Your task to perform on an android device: open app "Google Play Games" (install if not already installed) Image 0: 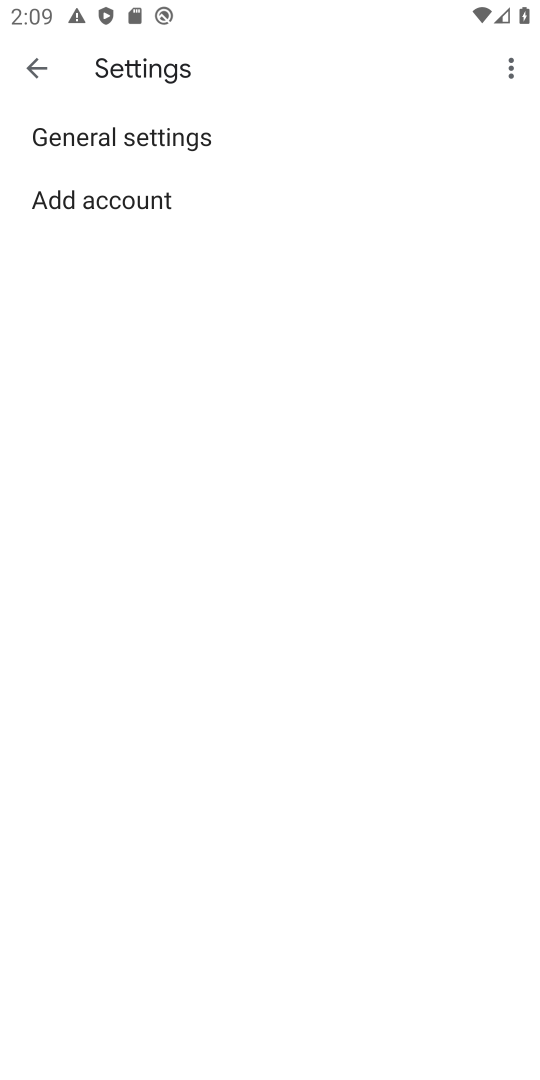
Step 0: press back button
Your task to perform on an android device: open app "Google Play Games" (install if not already installed) Image 1: 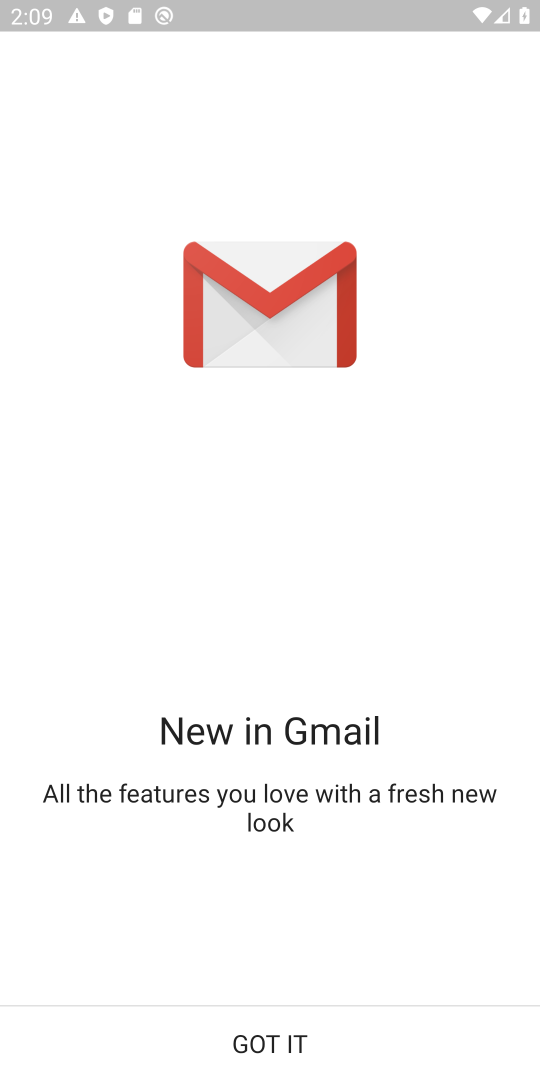
Step 1: press home button
Your task to perform on an android device: open app "Google Play Games" (install if not already installed) Image 2: 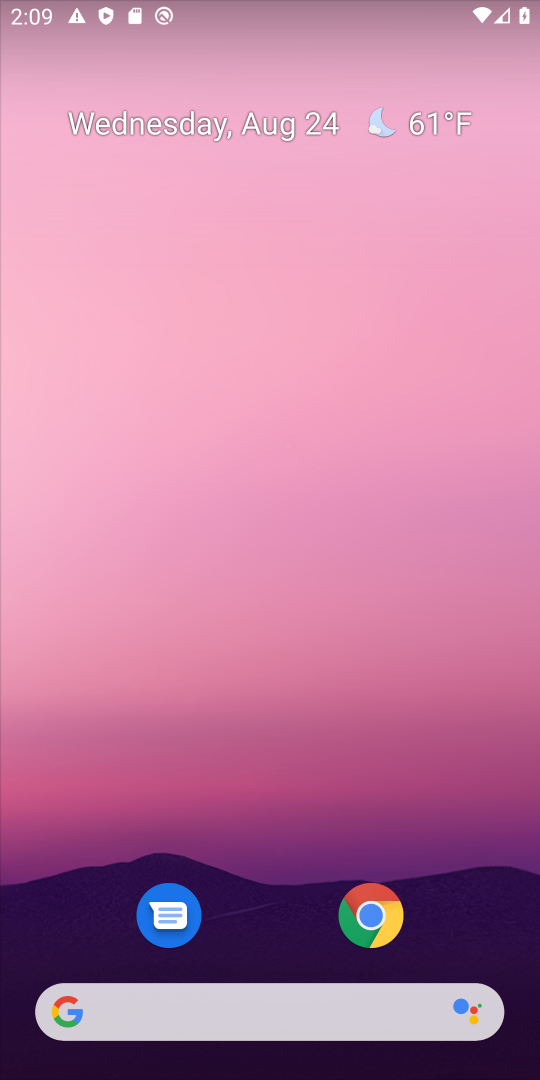
Step 2: drag from (209, 851) to (266, 142)
Your task to perform on an android device: open app "Google Play Games" (install if not already installed) Image 3: 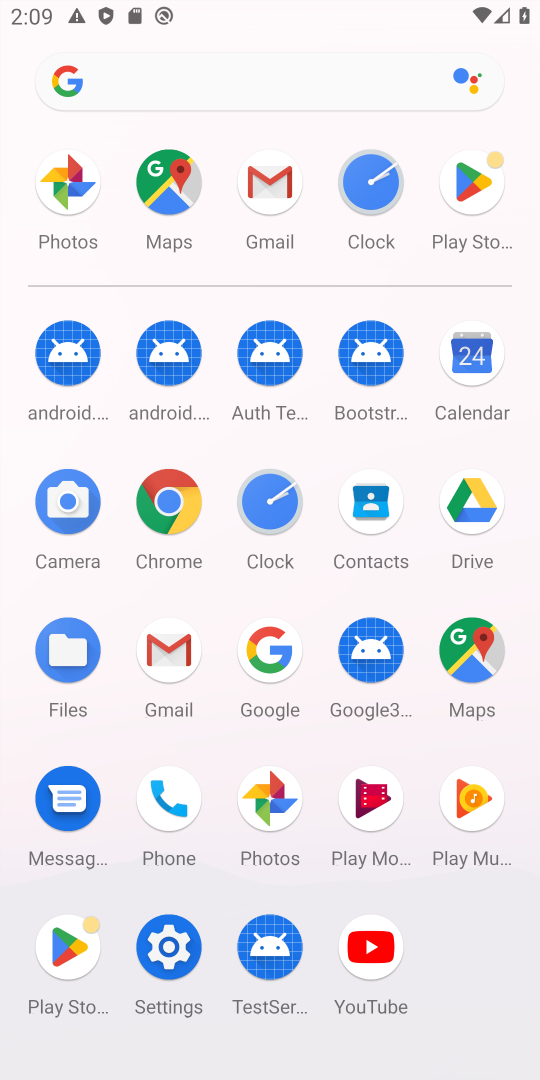
Step 3: click (456, 188)
Your task to perform on an android device: open app "Google Play Games" (install if not already installed) Image 4: 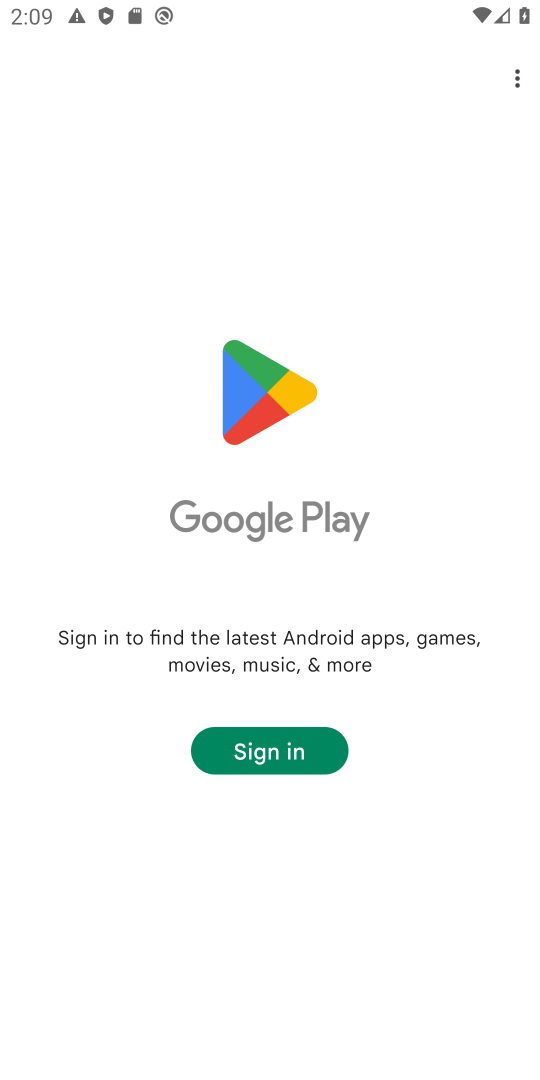
Step 4: task complete